Your task to perform on an android device: open wifi settings Image 0: 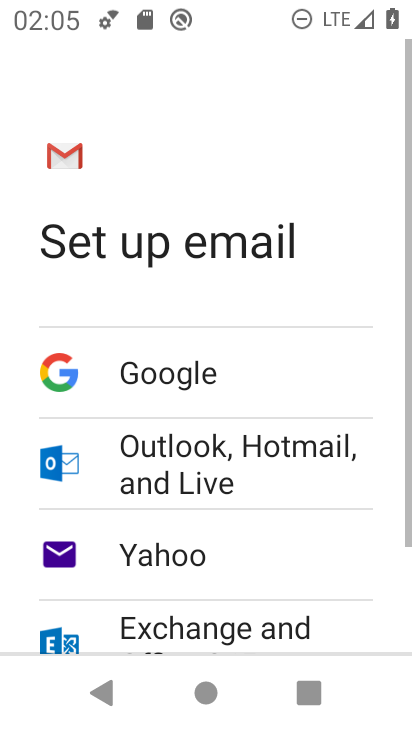
Step 0: press home button
Your task to perform on an android device: open wifi settings Image 1: 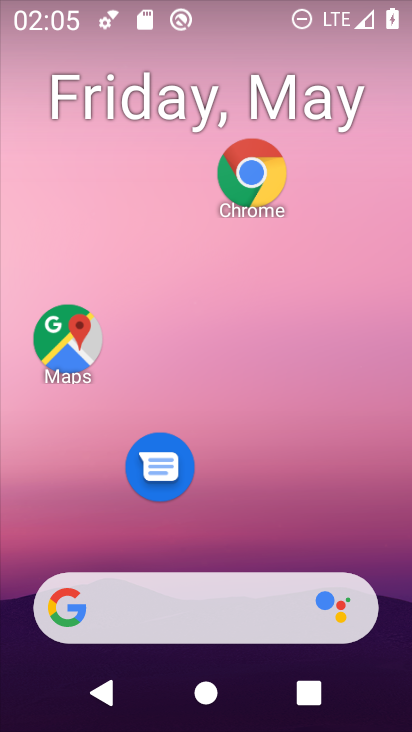
Step 1: drag from (248, 666) to (114, 214)
Your task to perform on an android device: open wifi settings Image 2: 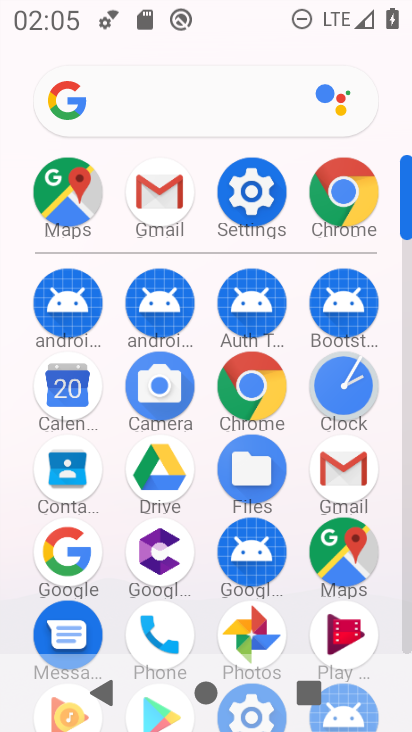
Step 2: click (232, 201)
Your task to perform on an android device: open wifi settings Image 3: 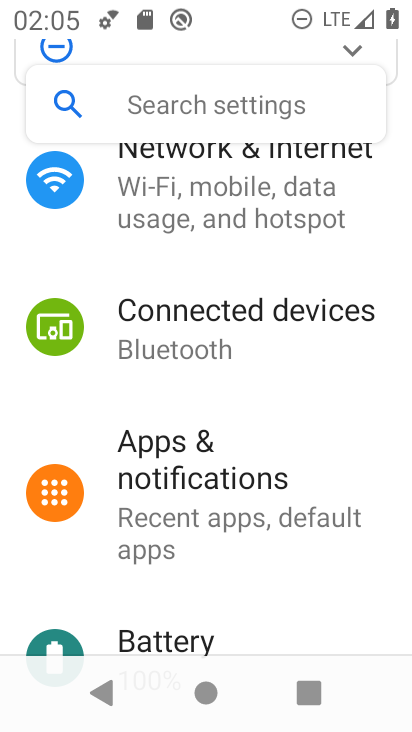
Step 3: click (207, 186)
Your task to perform on an android device: open wifi settings Image 4: 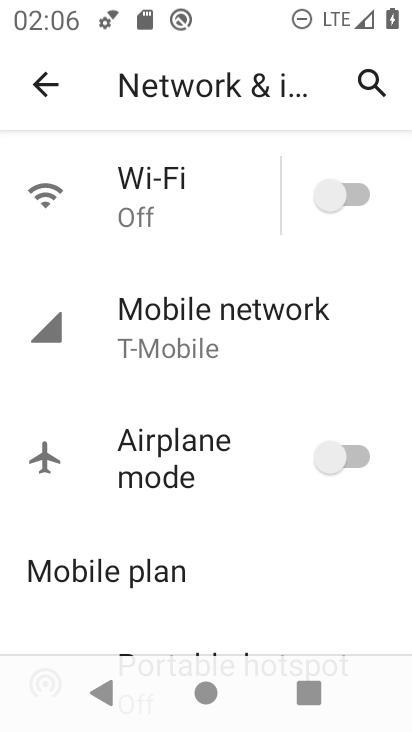
Step 4: click (89, 196)
Your task to perform on an android device: open wifi settings Image 5: 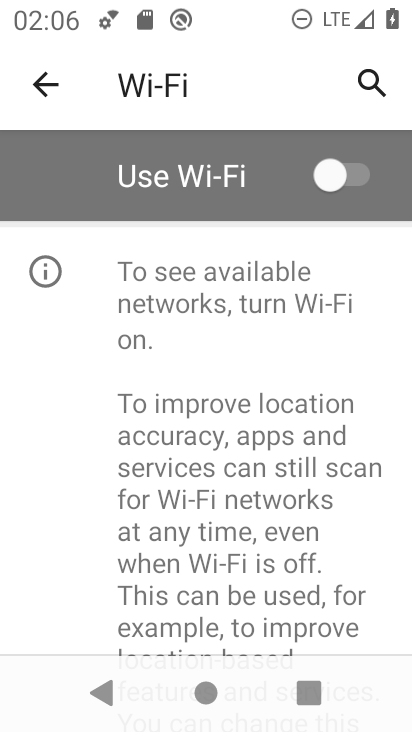
Step 5: task complete